Your task to perform on an android device: Go to eBay Image 0: 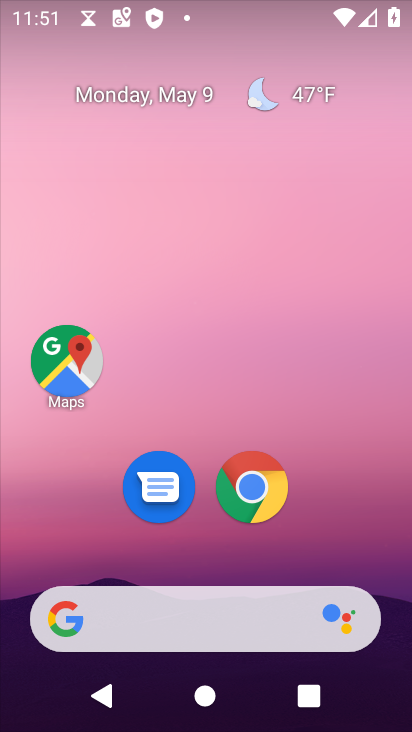
Step 0: drag from (208, 565) to (207, 122)
Your task to perform on an android device: Go to eBay Image 1: 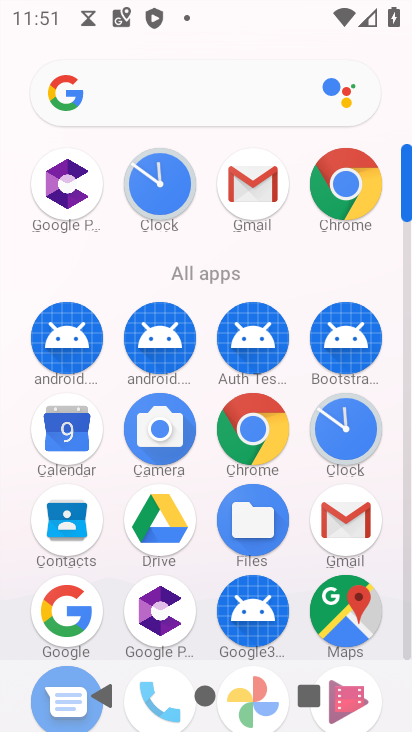
Step 1: click (341, 177)
Your task to perform on an android device: Go to eBay Image 2: 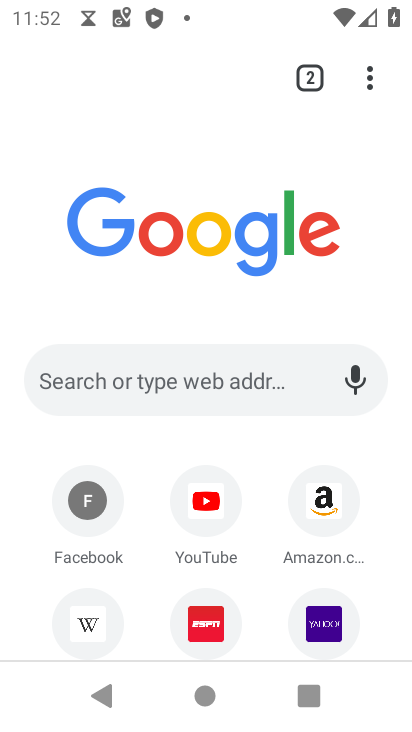
Step 2: click (190, 372)
Your task to perform on an android device: Go to eBay Image 3: 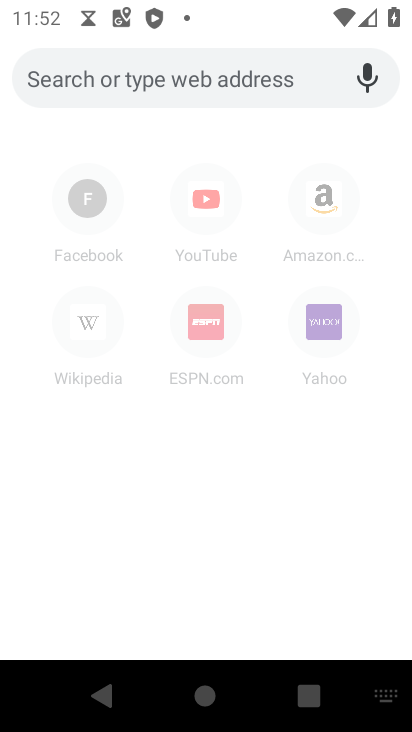
Step 3: type "ebay"
Your task to perform on an android device: Go to eBay Image 4: 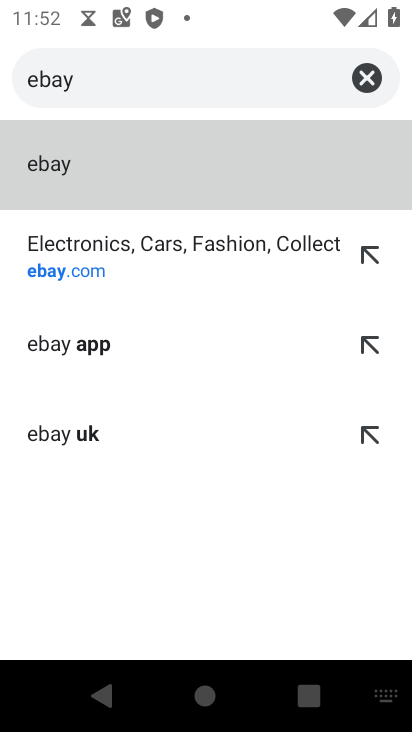
Step 4: click (117, 258)
Your task to perform on an android device: Go to eBay Image 5: 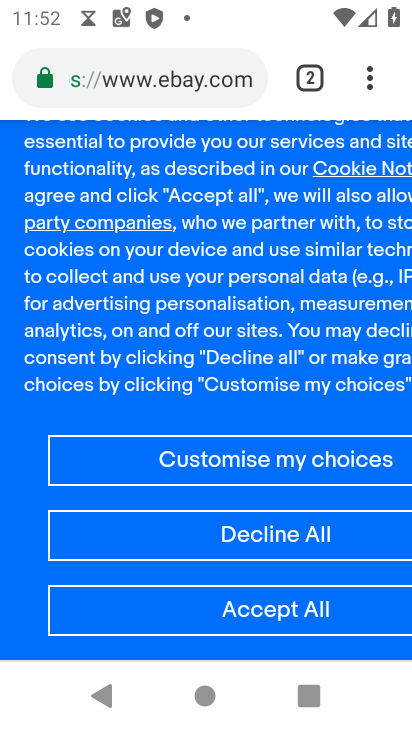
Step 5: click (280, 609)
Your task to perform on an android device: Go to eBay Image 6: 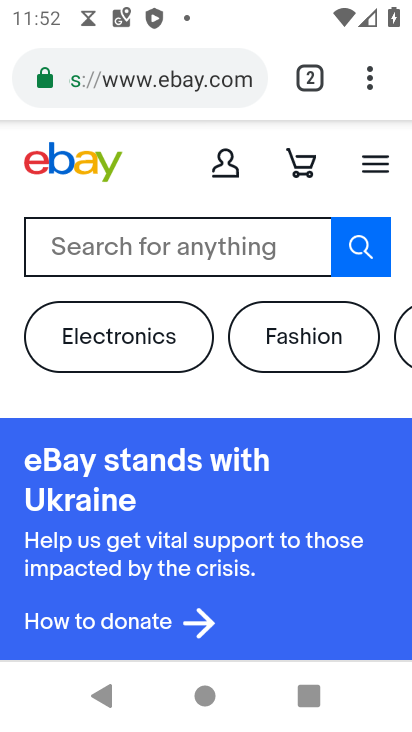
Step 6: task complete